Your task to perform on an android device: turn off notifications in google photos Image 0: 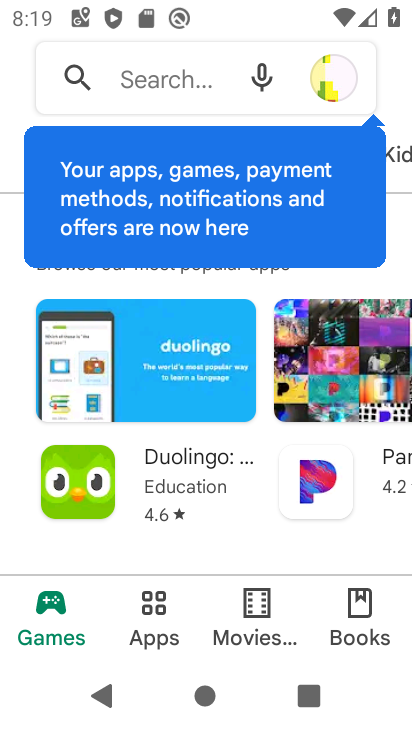
Step 0: press home button
Your task to perform on an android device: turn off notifications in google photos Image 1: 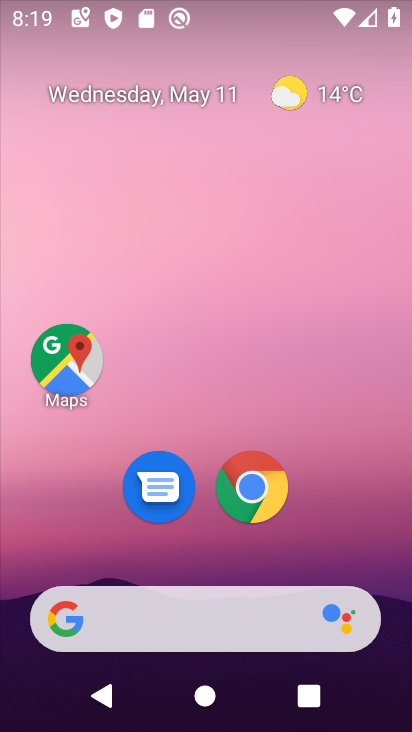
Step 1: click (205, 575)
Your task to perform on an android device: turn off notifications in google photos Image 2: 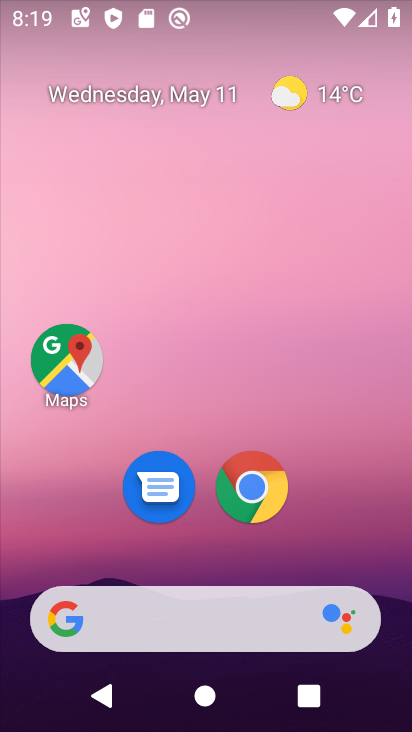
Step 2: drag from (192, 586) to (213, 194)
Your task to perform on an android device: turn off notifications in google photos Image 3: 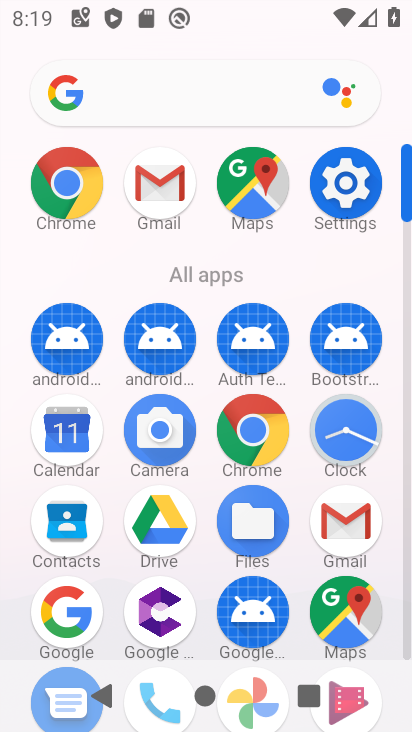
Step 3: drag from (220, 578) to (210, 183)
Your task to perform on an android device: turn off notifications in google photos Image 4: 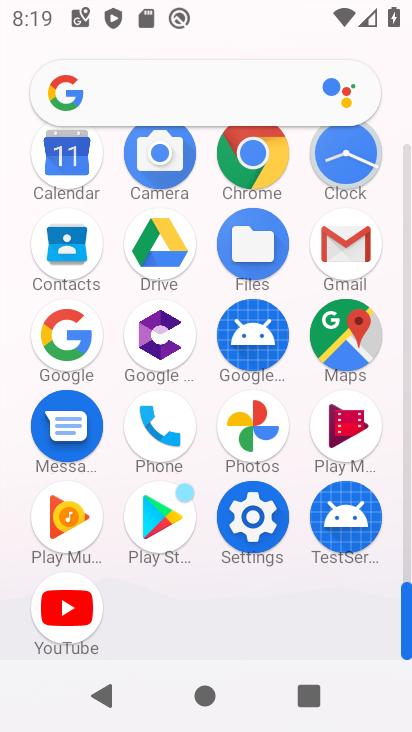
Step 4: click (261, 431)
Your task to perform on an android device: turn off notifications in google photos Image 5: 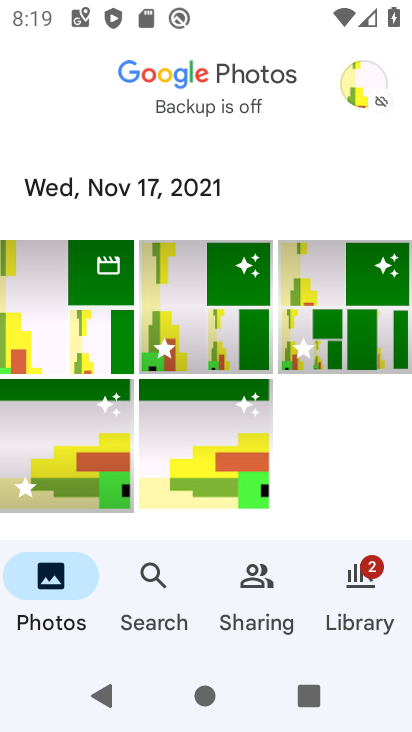
Step 5: click (354, 85)
Your task to perform on an android device: turn off notifications in google photos Image 6: 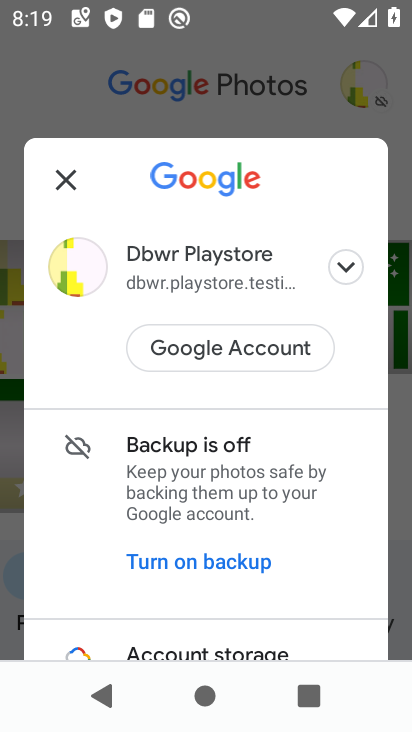
Step 6: drag from (188, 604) to (221, 302)
Your task to perform on an android device: turn off notifications in google photos Image 7: 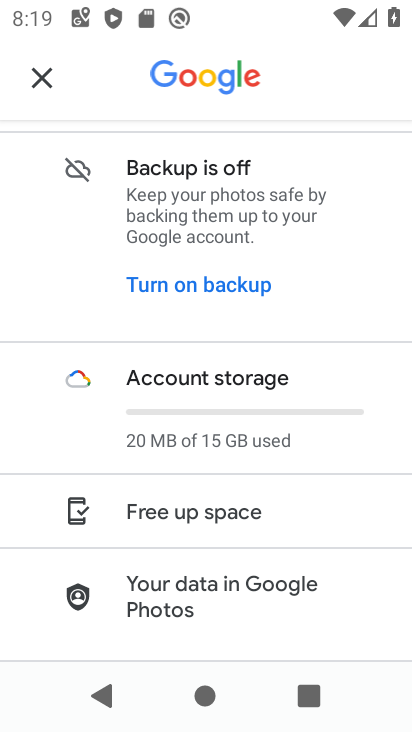
Step 7: drag from (193, 640) to (190, 371)
Your task to perform on an android device: turn off notifications in google photos Image 8: 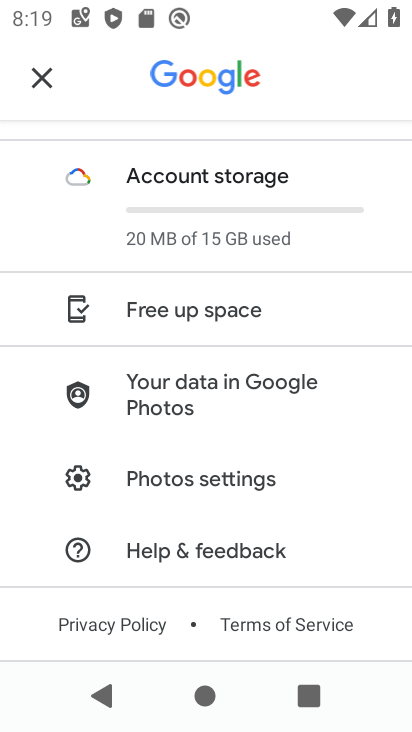
Step 8: click (178, 480)
Your task to perform on an android device: turn off notifications in google photos Image 9: 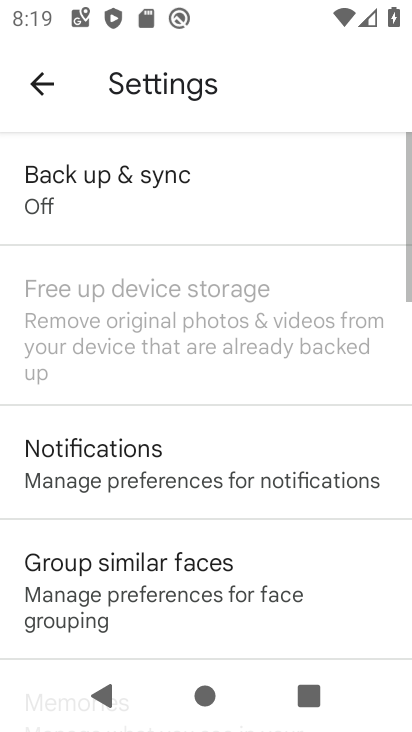
Step 9: click (125, 452)
Your task to perform on an android device: turn off notifications in google photos Image 10: 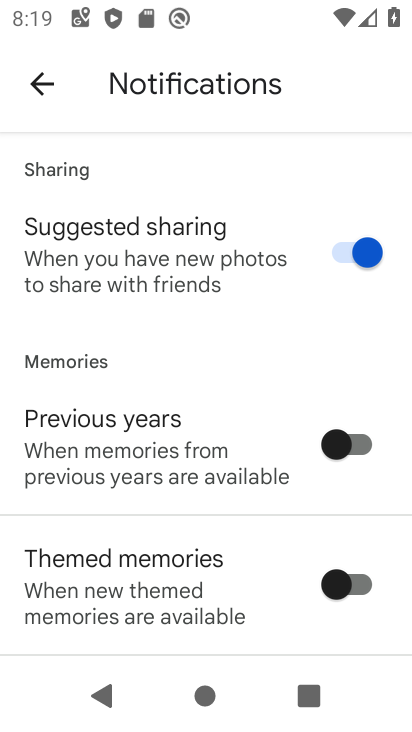
Step 10: drag from (182, 599) to (177, 330)
Your task to perform on an android device: turn off notifications in google photos Image 11: 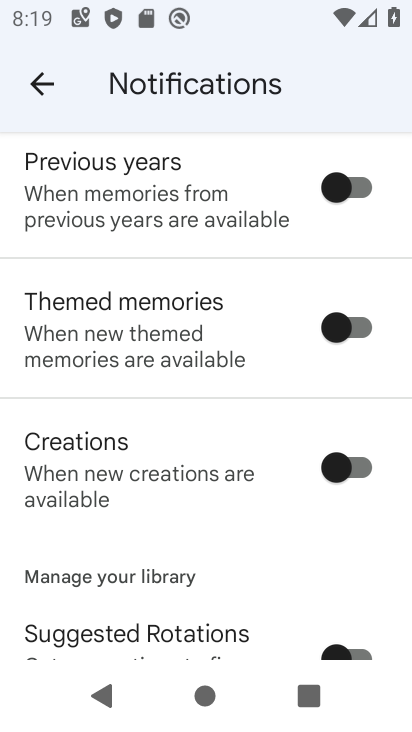
Step 11: drag from (150, 610) to (143, 296)
Your task to perform on an android device: turn off notifications in google photos Image 12: 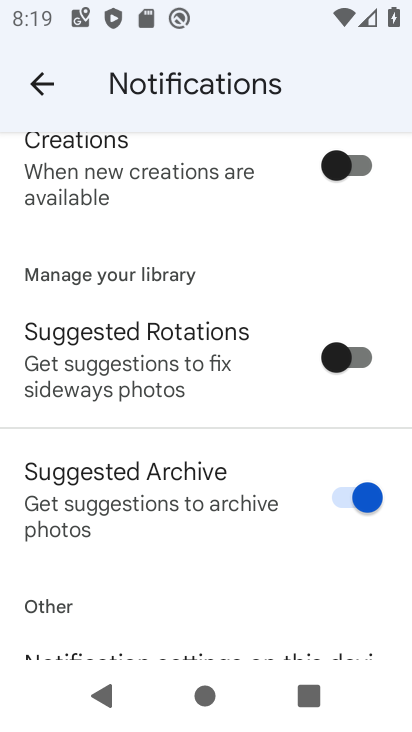
Step 12: drag from (160, 623) to (163, 343)
Your task to perform on an android device: turn off notifications in google photos Image 13: 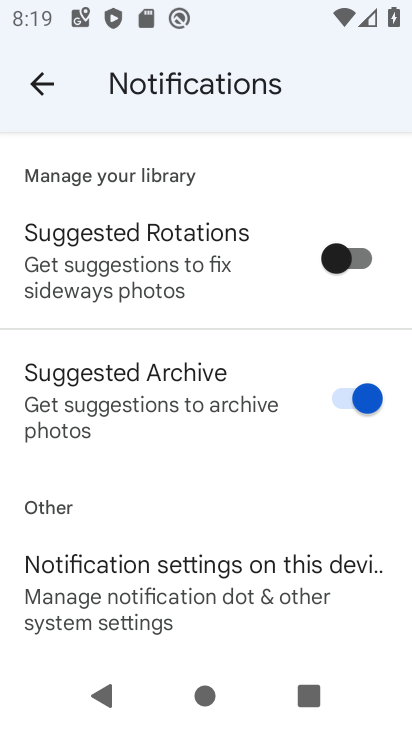
Step 13: click (161, 572)
Your task to perform on an android device: turn off notifications in google photos Image 14: 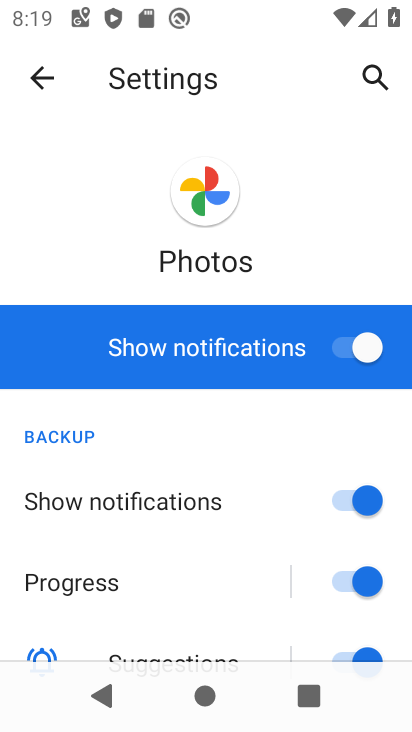
Step 14: click (334, 347)
Your task to perform on an android device: turn off notifications in google photos Image 15: 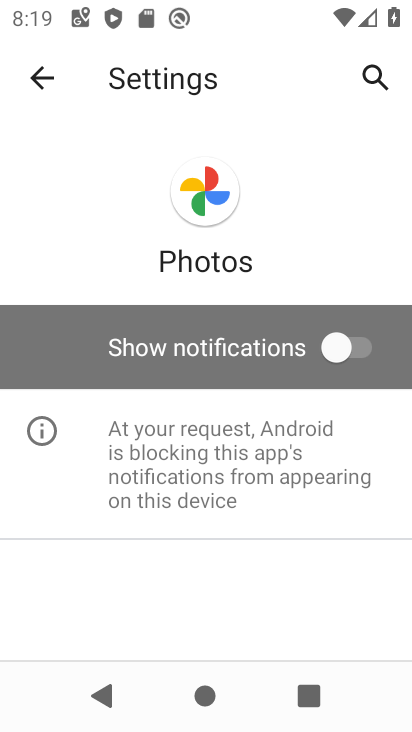
Step 15: task complete